Your task to perform on an android device: toggle show notifications on the lock screen Image 0: 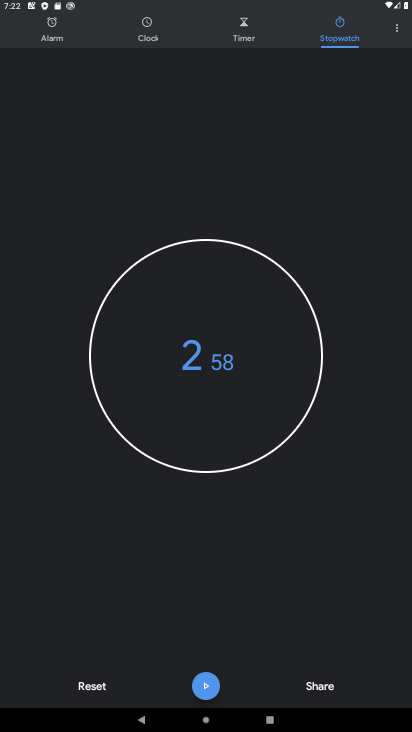
Step 0: press home button
Your task to perform on an android device: toggle show notifications on the lock screen Image 1: 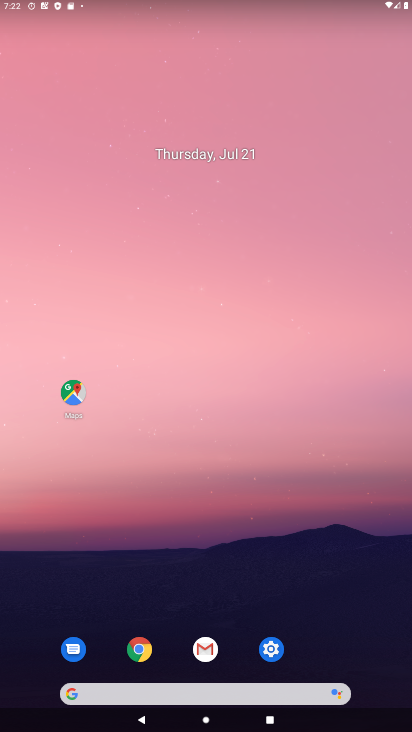
Step 1: click (271, 639)
Your task to perform on an android device: toggle show notifications on the lock screen Image 2: 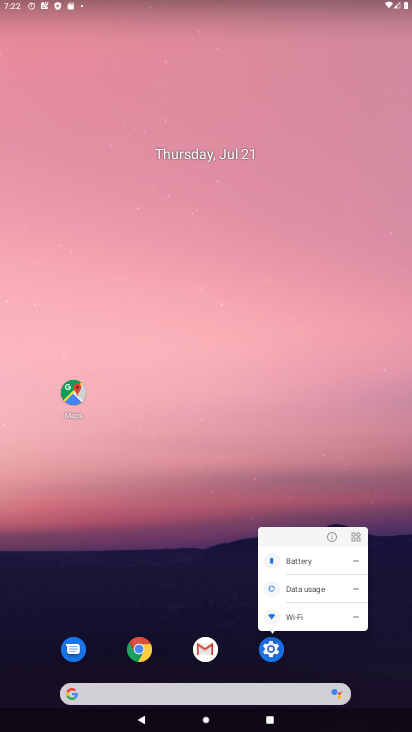
Step 2: click (275, 649)
Your task to perform on an android device: toggle show notifications on the lock screen Image 3: 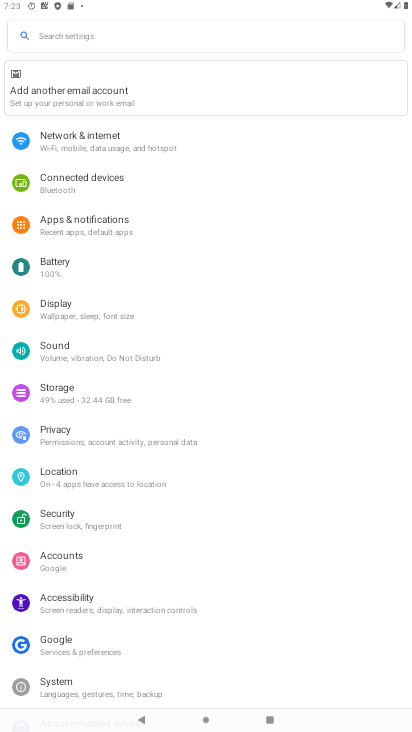
Step 3: click (68, 41)
Your task to perform on an android device: toggle show notifications on the lock screen Image 4: 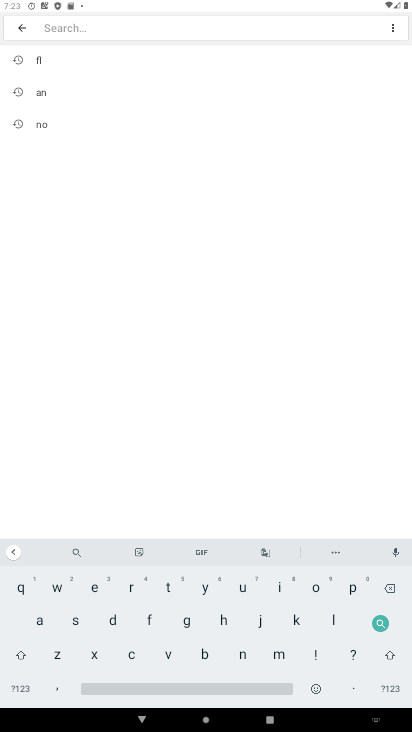
Step 4: click (75, 620)
Your task to perform on an android device: toggle show notifications on the lock screen Image 5: 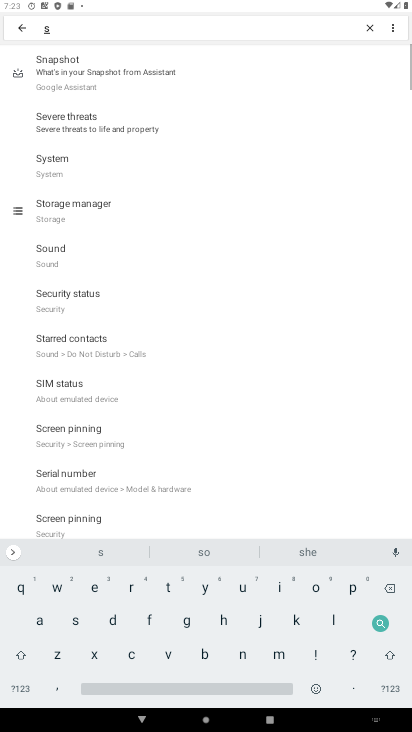
Step 5: click (223, 618)
Your task to perform on an android device: toggle show notifications on the lock screen Image 6: 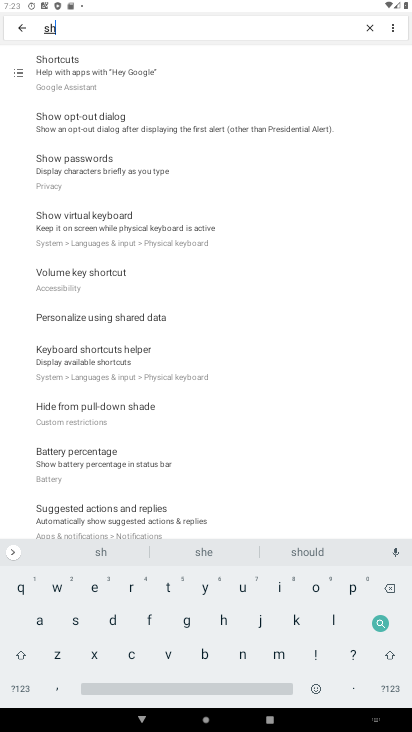
Step 6: click (310, 585)
Your task to perform on an android device: toggle show notifications on the lock screen Image 7: 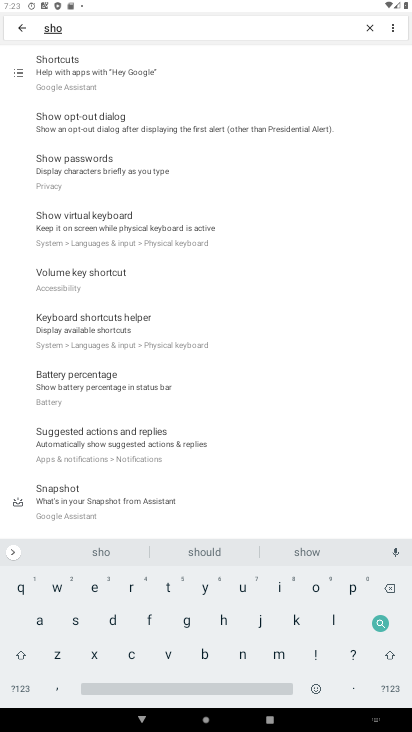
Step 7: click (390, 587)
Your task to perform on an android device: toggle show notifications on the lock screen Image 8: 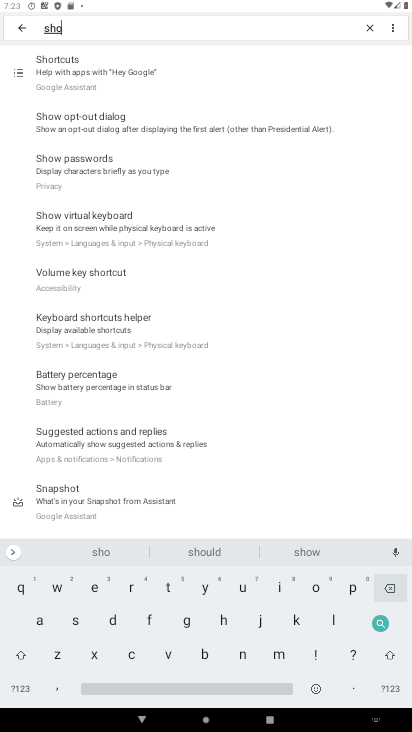
Step 8: click (390, 587)
Your task to perform on an android device: toggle show notifications on the lock screen Image 9: 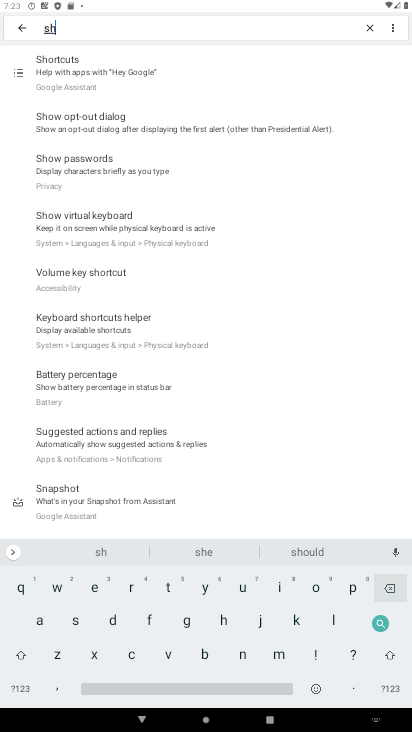
Step 9: click (390, 587)
Your task to perform on an android device: toggle show notifications on the lock screen Image 10: 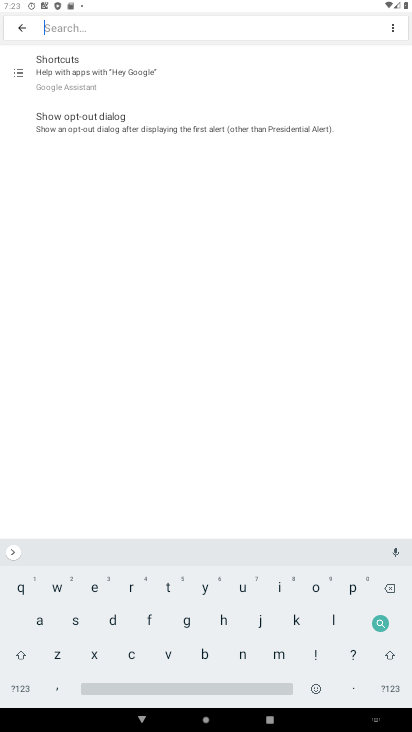
Step 10: click (390, 587)
Your task to perform on an android device: toggle show notifications on the lock screen Image 11: 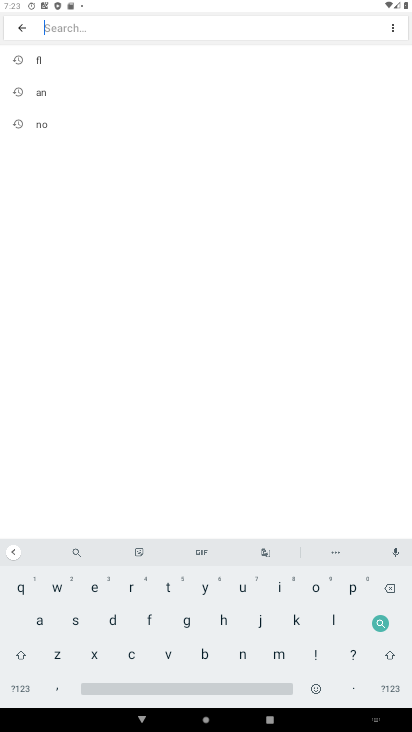
Step 11: click (390, 587)
Your task to perform on an android device: toggle show notifications on the lock screen Image 12: 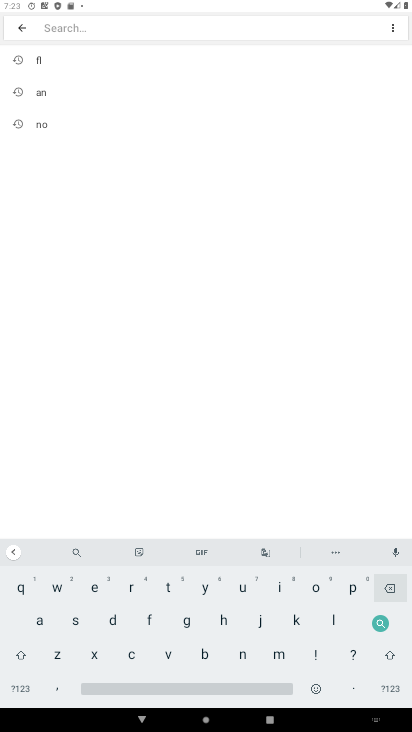
Step 12: click (390, 587)
Your task to perform on an android device: toggle show notifications on the lock screen Image 13: 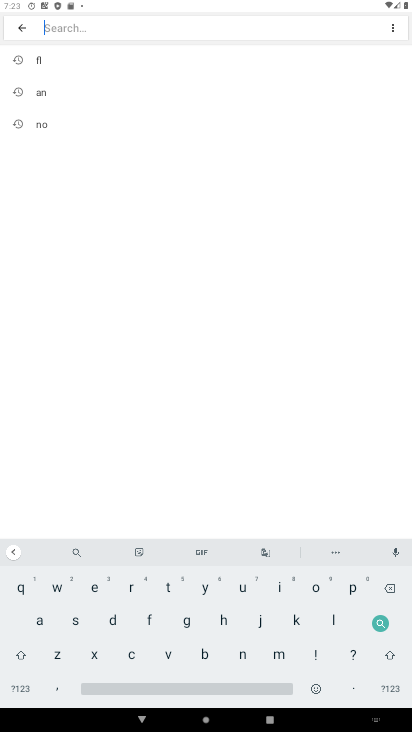
Step 13: click (243, 654)
Your task to perform on an android device: toggle show notifications on the lock screen Image 14: 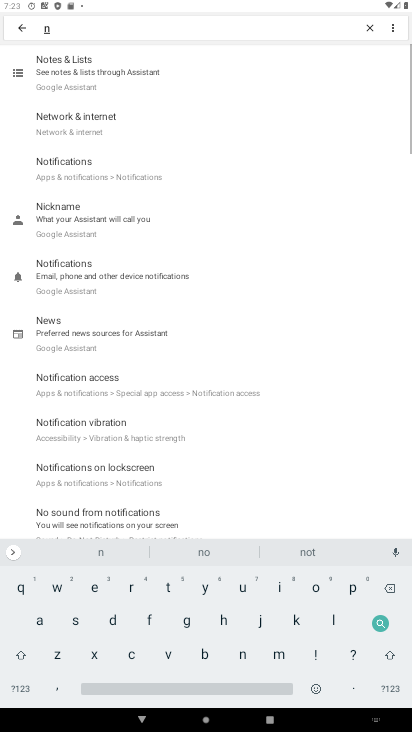
Step 14: click (320, 583)
Your task to perform on an android device: toggle show notifications on the lock screen Image 15: 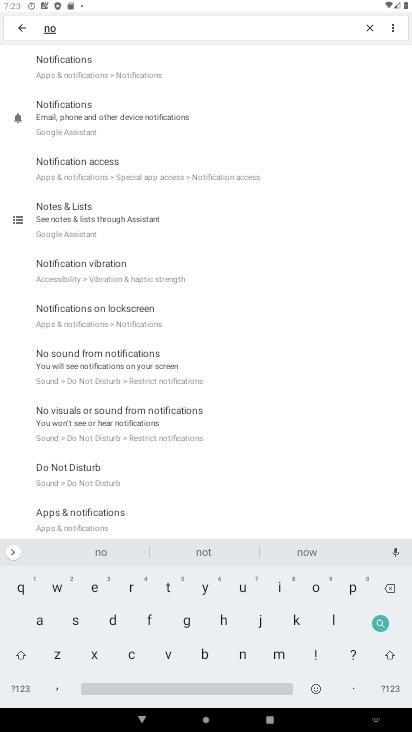
Step 15: click (72, 72)
Your task to perform on an android device: toggle show notifications on the lock screen Image 16: 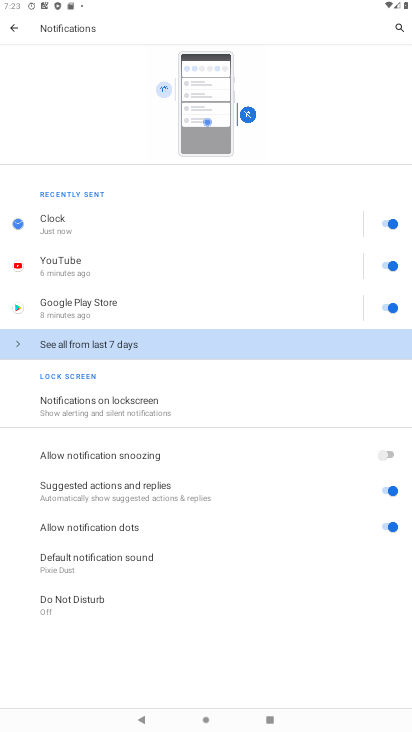
Step 16: click (57, 406)
Your task to perform on an android device: toggle show notifications on the lock screen Image 17: 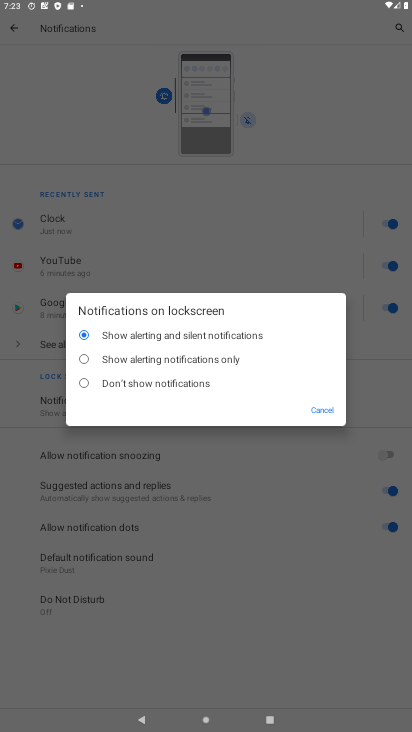
Step 17: task complete